Your task to perform on an android device: open app "Skype" Image 0: 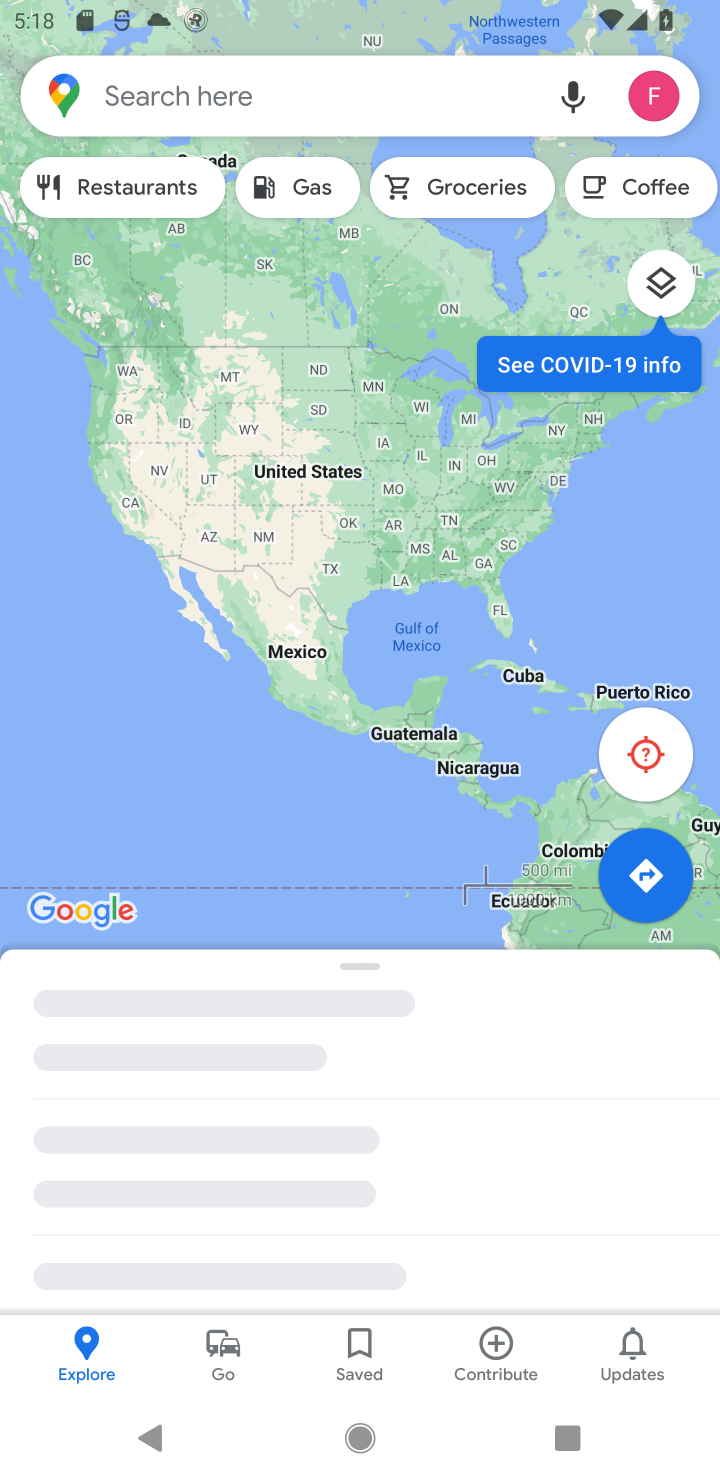
Step 0: press home button
Your task to perform on an android device: open app "Skype" Image 1: 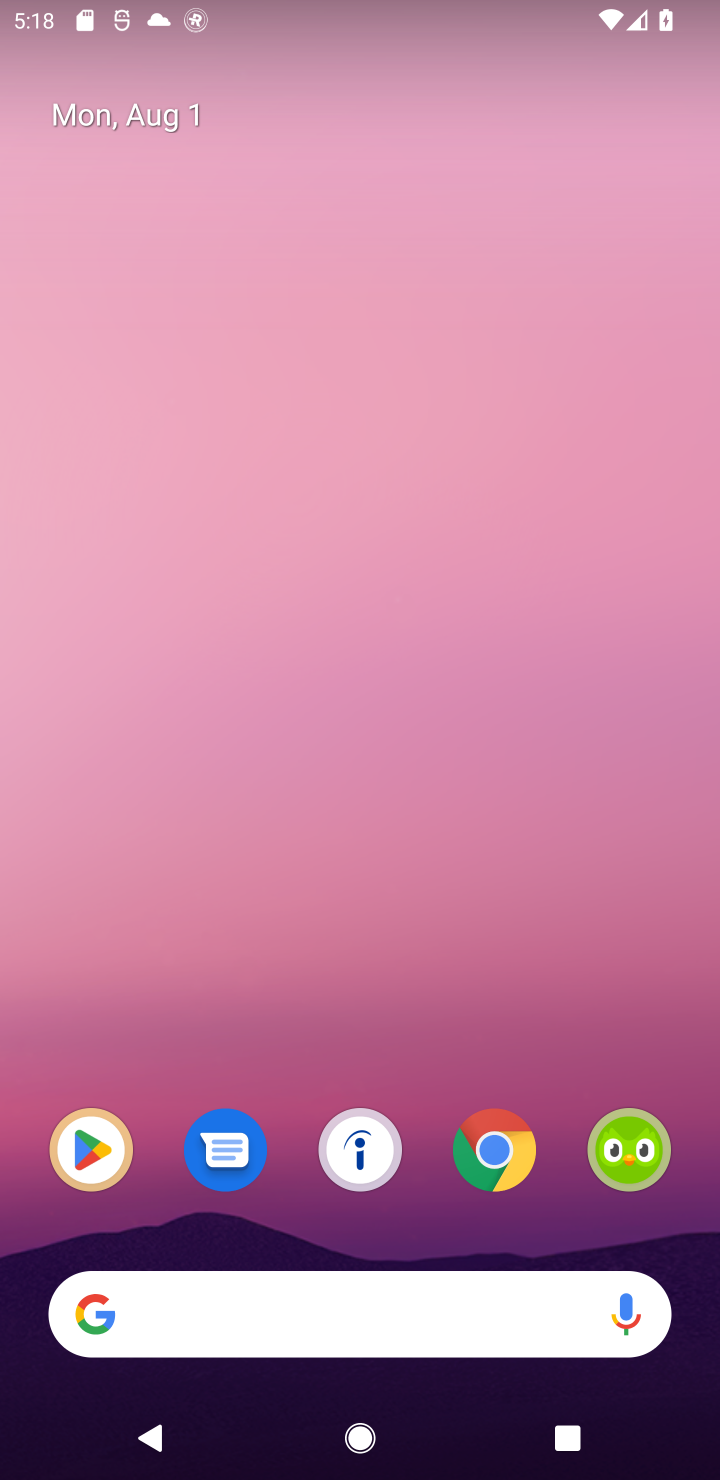
Step 1: click (78, 1127)
Your task to perform on an android device: open app "Skype" Image 2: 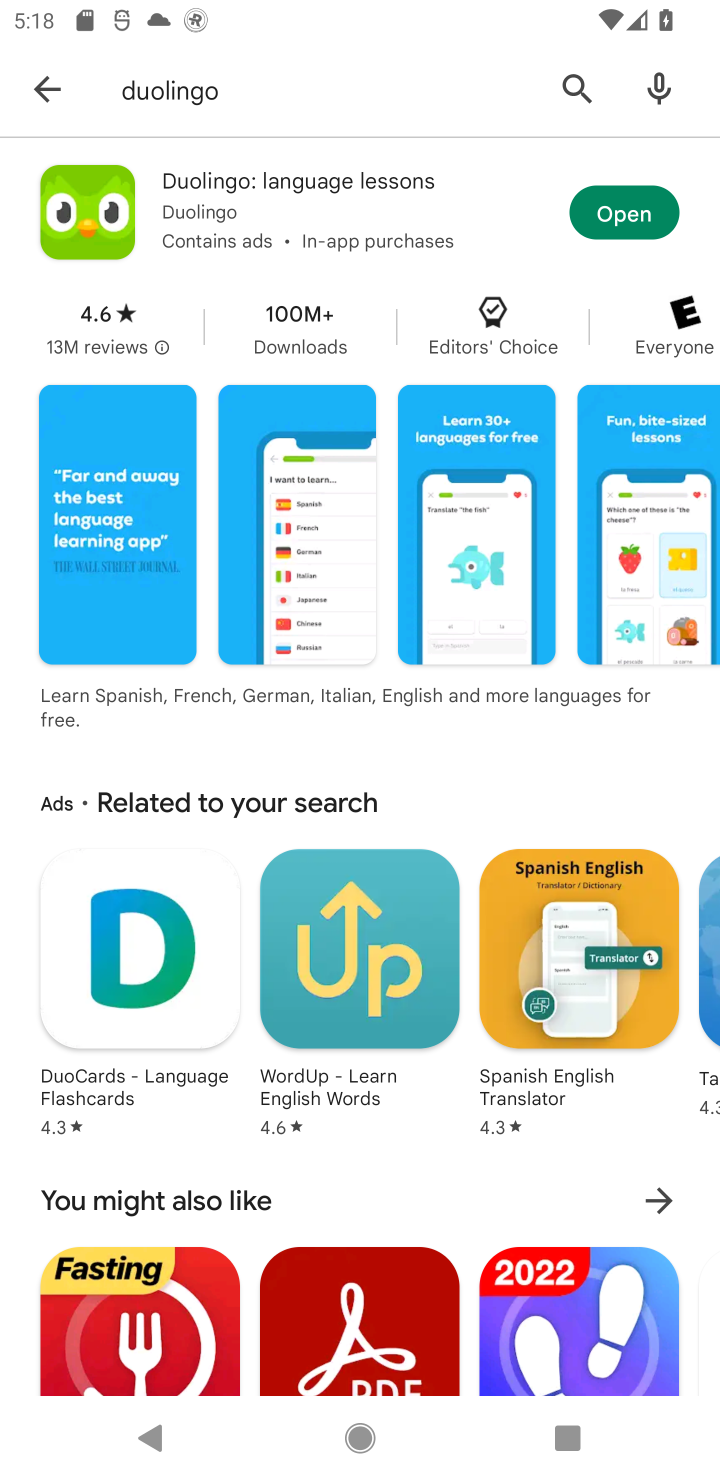
Step 2: click (582, 73)
Your task to perform on an android device: open app "Skype" Image 3: 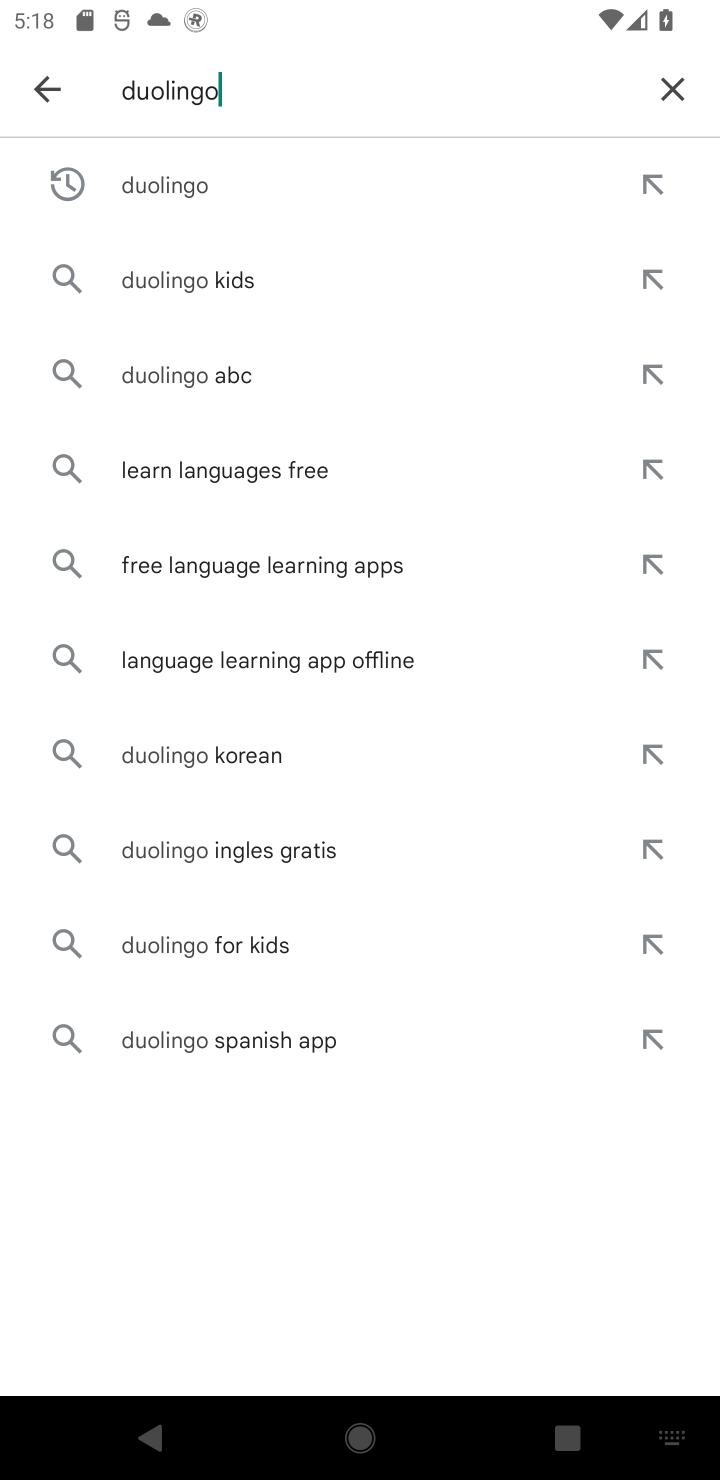
Step 3: click (671, 105)
Your task to perform on an android device: open app "Skype" Image 4: 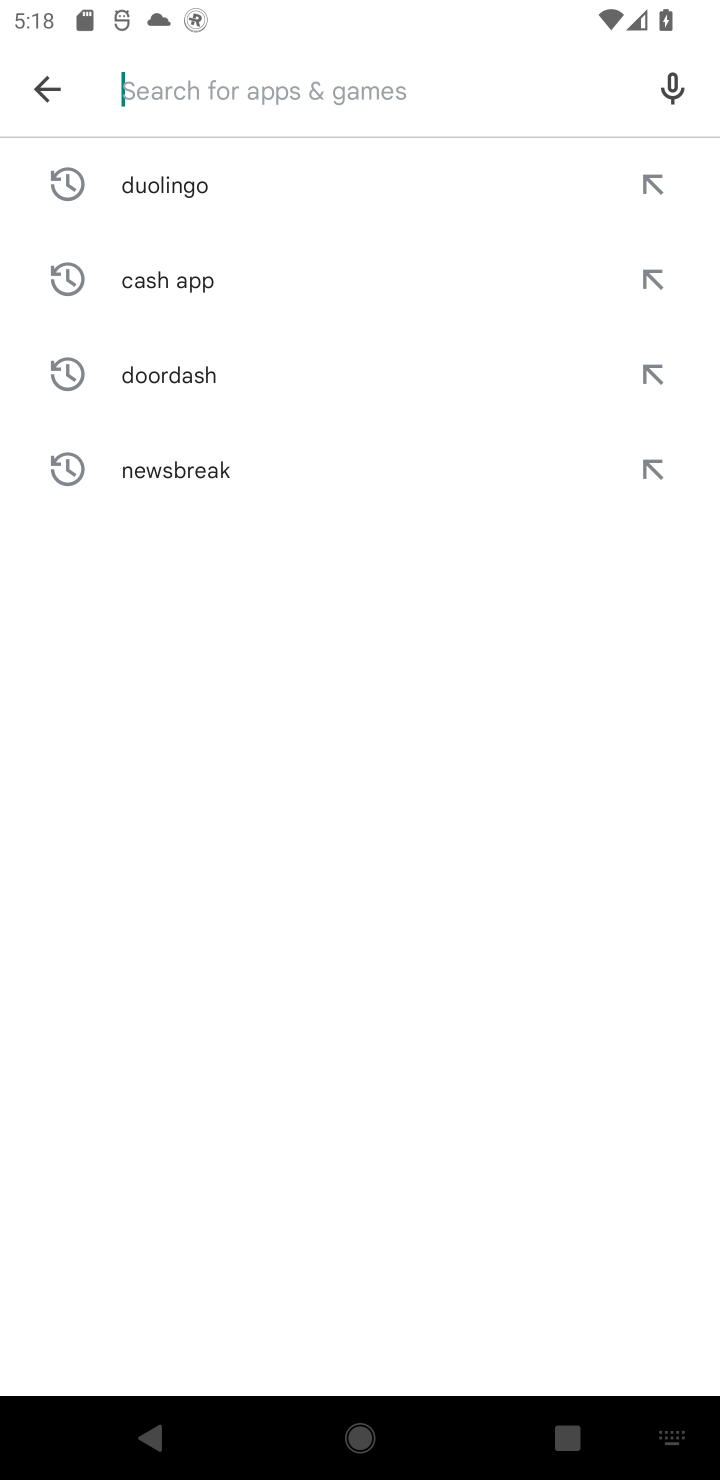
Step 4: type "skype"
Your task to perform on an android device: open app "Skype" Image 5: 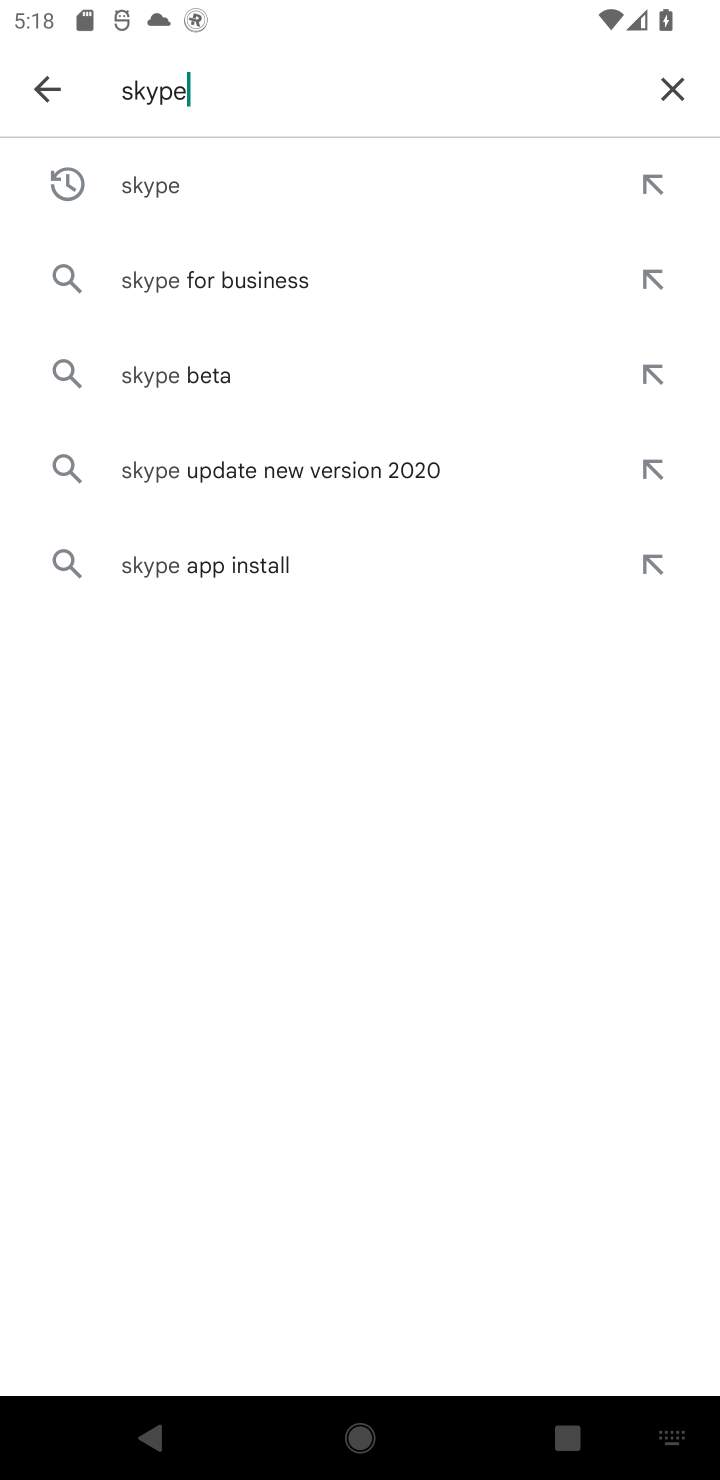
Step 5: click (261, 206)
Your task to perform on an android device: open app "Skype" Image 6: 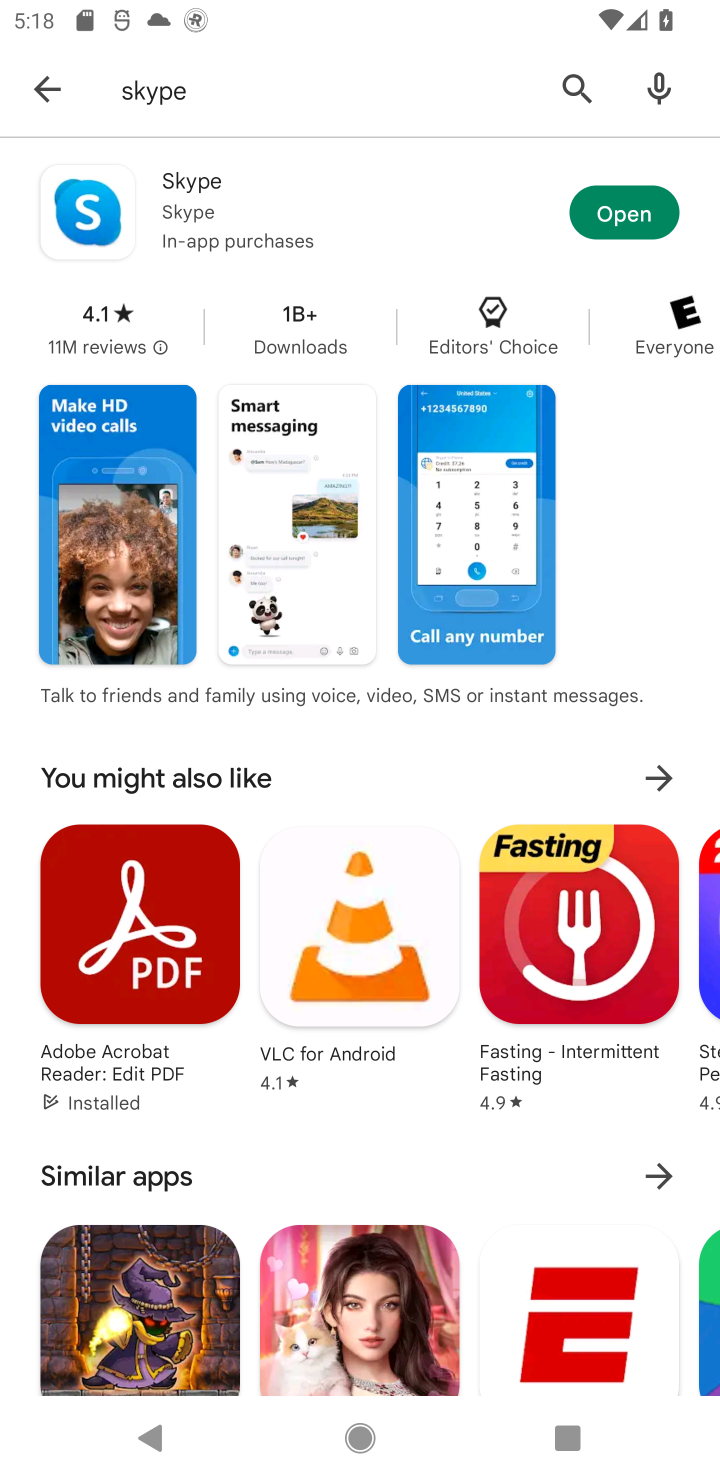
Step 6: click (592, 211)
Your task to perform on an android device: open app "Skype" Image 7: 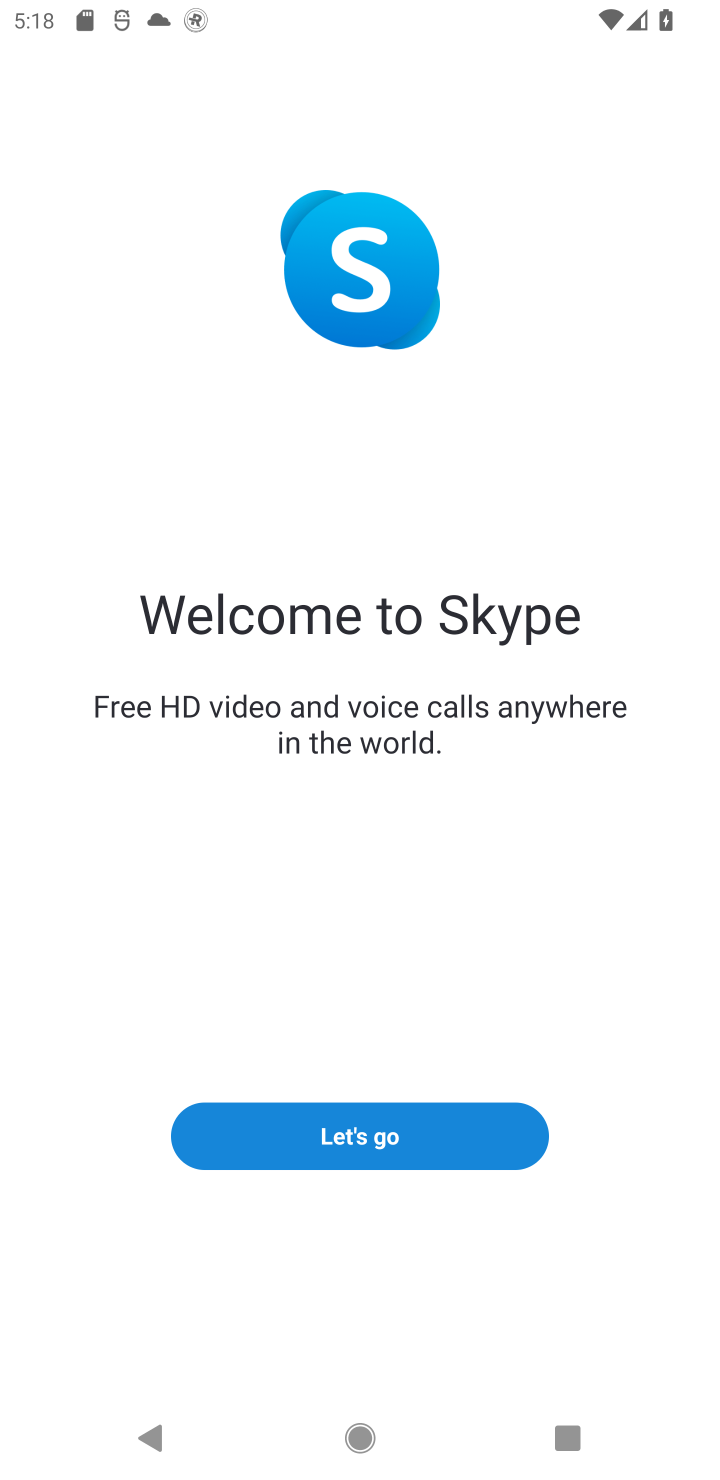
Step 7: task complete